Your task to perform on an android device: refresh tabs in the chrome app Image 0: 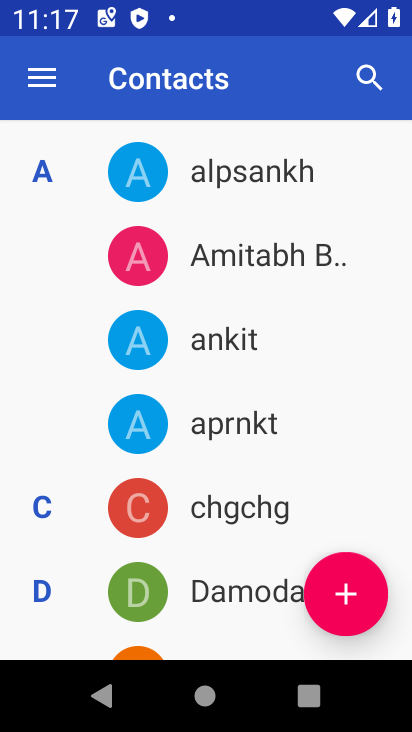
Step 0: press home button
Your task to perform on an android device: refresh tabs in the chrome app Image 1: 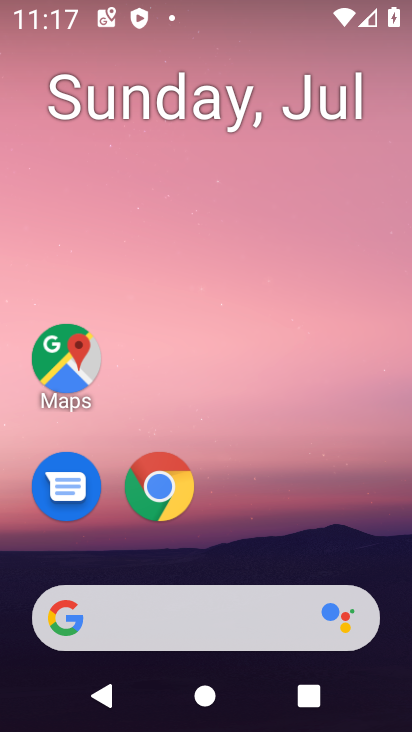
Step 1: drag from (358, 536) to (337, 139)
Your task to perform on an android device: refresh tabs in the chrome app Image 2: 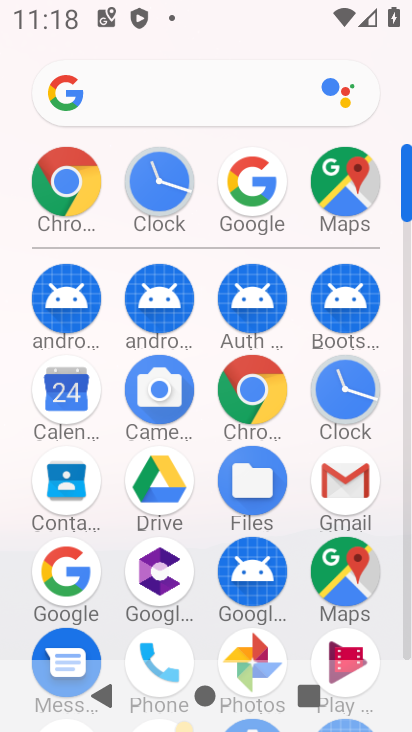
Step 2: click (255, 391)
Your task to perform on an android device: refresh tabs in the chrome app Image 3: 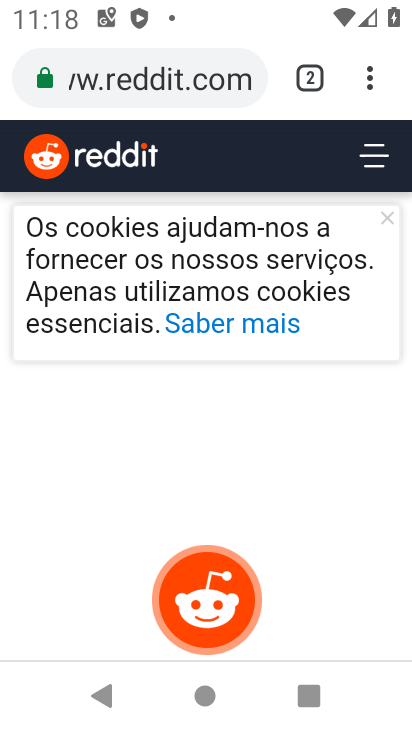
Step 3: click (372, 85)
Your task to perform on an android device: refresh tabs in the chrome app Image 4: 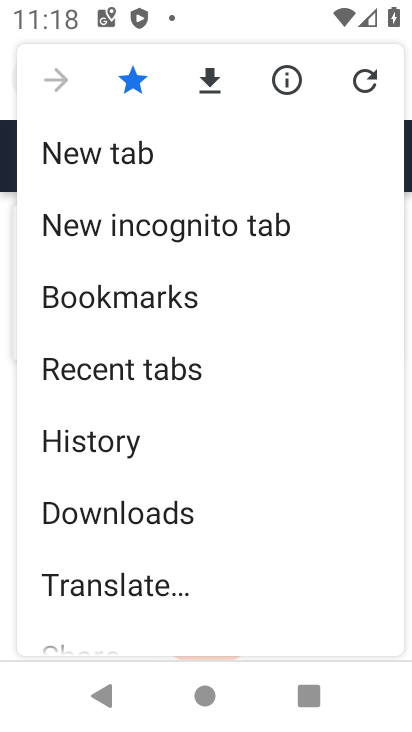
Step 4: click (366, 82)
Your task to perform on an android device: refresh tabs in the chrome app Image 5: 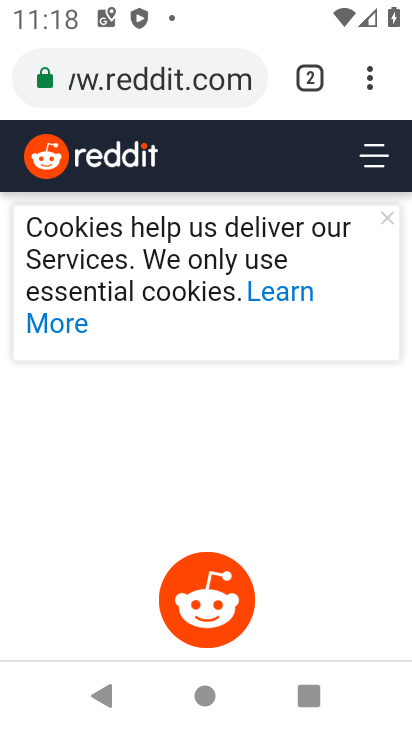
Step 5: task complete